Your task to perform on an android device: clear all cookies in the chrome app Image 0: 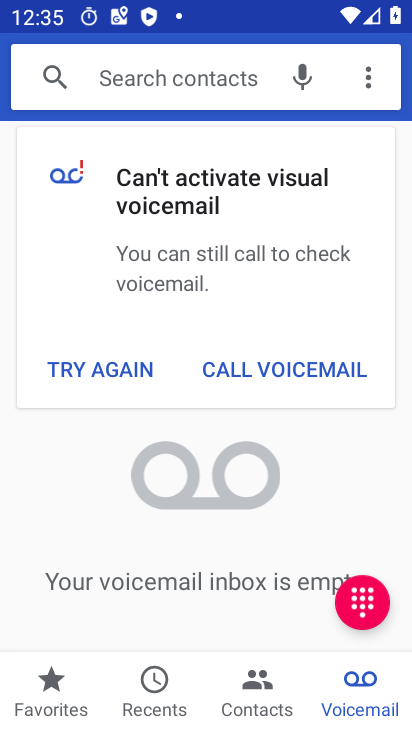
Step 0: press home button
Your task to perform on an android device: clear all cookies in the chrome app Image 1: 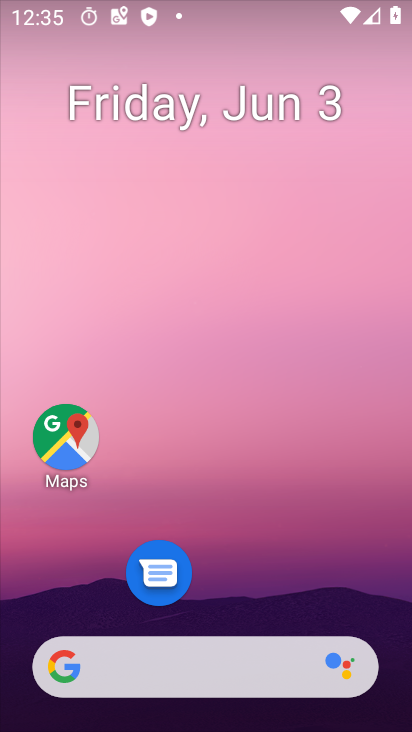
Step 1: drag from (242, 624) to (248, 117)
Your task to perform on an android device: clear all cookies in the chrome app Image 2: 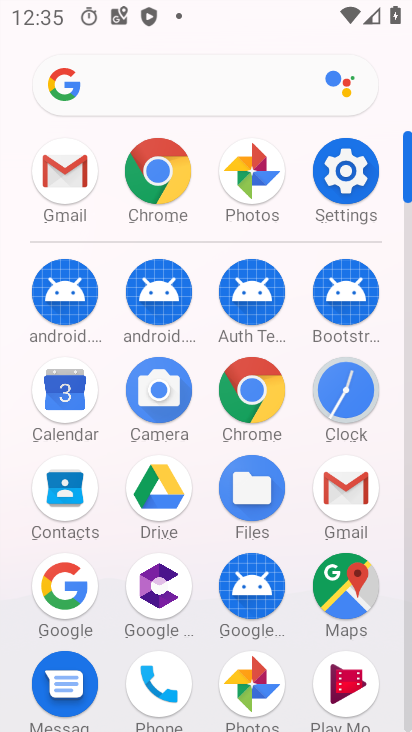
Step 2: click (263, 394)
Your task to perform on an android device: clear all cookies in the chrome app Image 3: 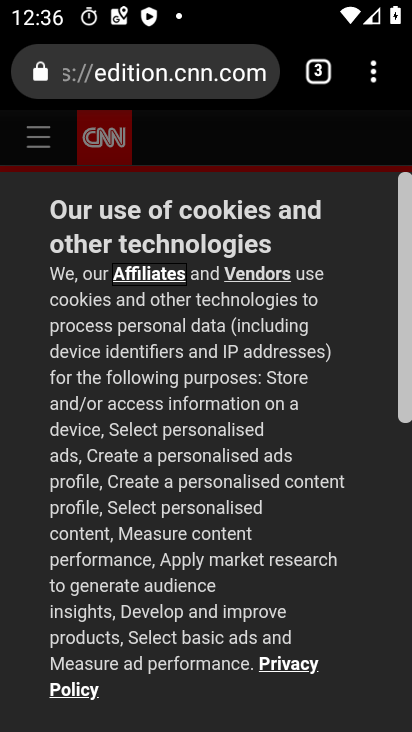
Step 3: drag from (386, 72) to (148, 574)
Your task to perform on an android device: clear all cookies in the chrome app Image 4: 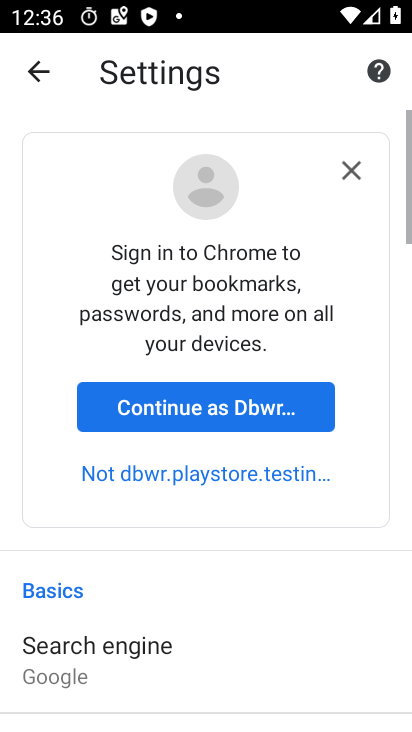
Step 4: drag from (183, 669) to (133, 66)
Your task to perform on an android device: clear all cookies in the chrome app Image 5: 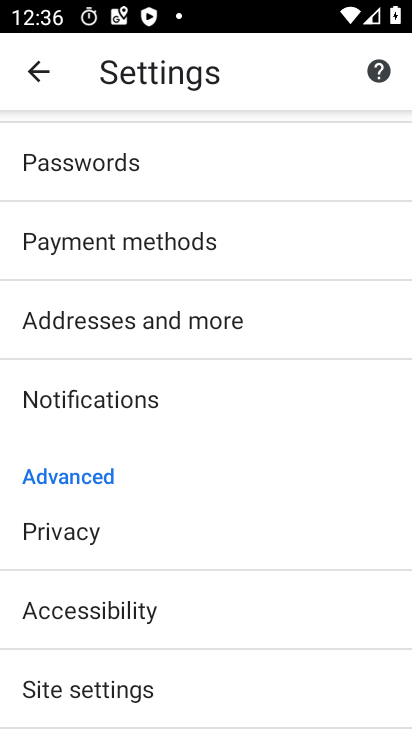
Step 5: drag from (179, 680) to (166, 457)
Your task to perform on an android device: clear all cookies in the chrome app Image 6: 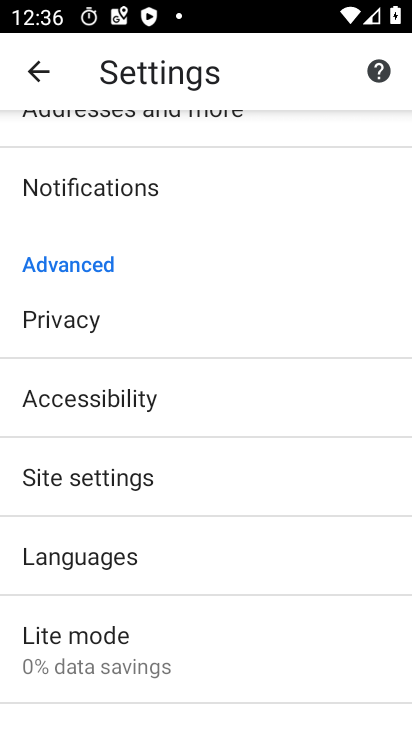
Step 6: click (94, 324)
Your task to perform on an android device: clear all cookies in the chrome app Image 7: 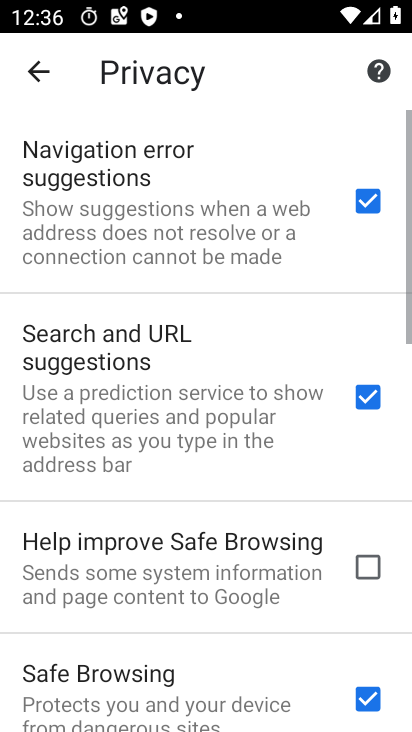
Step 7: drag from (169, 691) to (226, 191)
Your task to perform on an android device: clear all cookies in the chrome app Image 8: 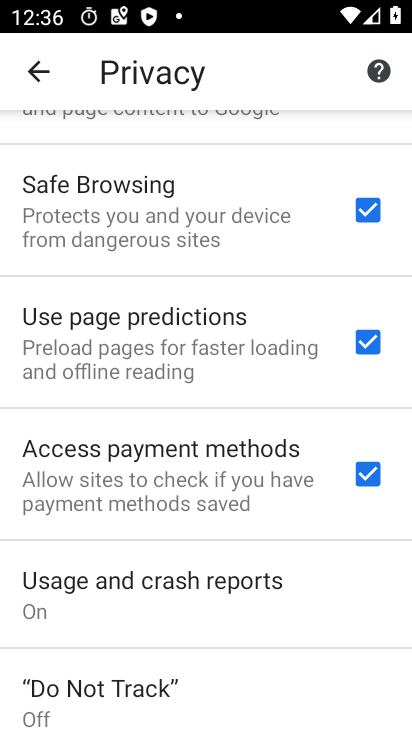
Step 8: drag from (237, 698) to (207, 277)
Your task to perform on an android device: clear all cookies in the chrome app Image 9: 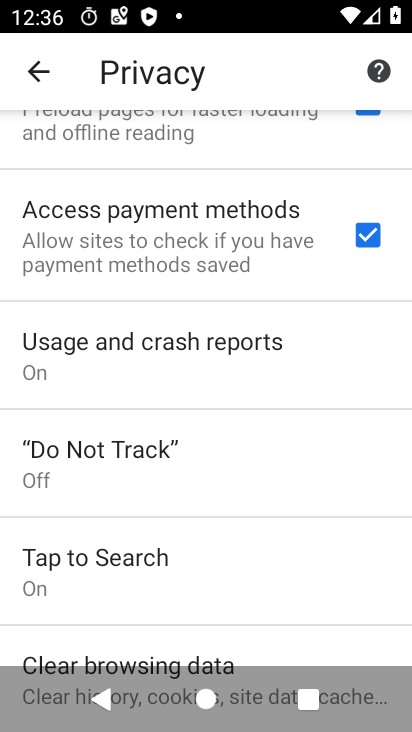
Step 9: click (240, 648)
Your task to perform on an android device: clear all cookies in the chrome app Image 10: 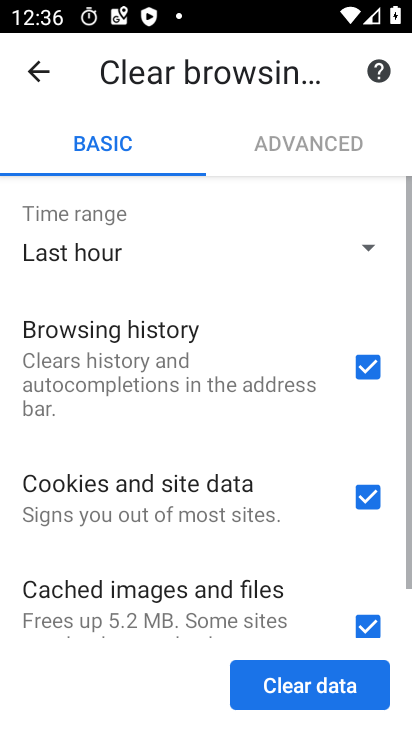
Step 10: click (270, 682)
Your task to perform on an android device: clear all cookies in the chrome app Image 11: 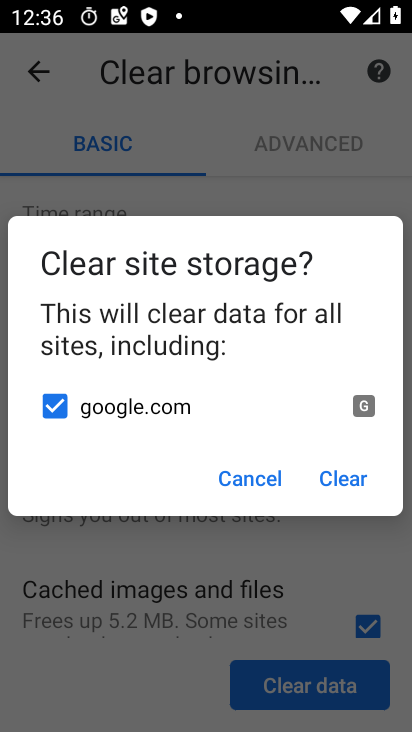
Step 11: click (347, 477)
Your task to perform on an android device: clear all cookies in the chrome app Image 12: 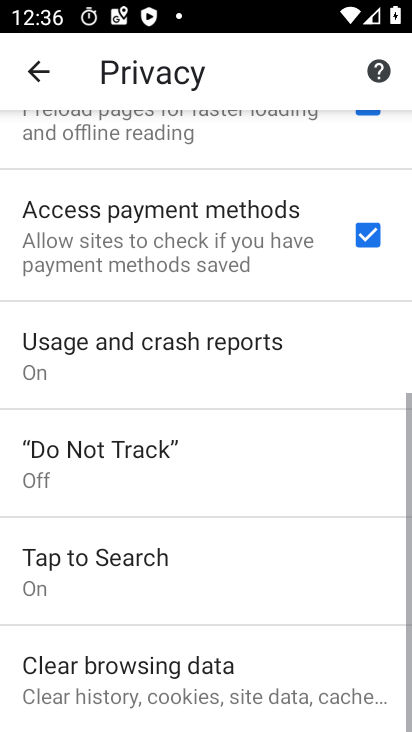
Step 12: task complete